Your task to perform on an android device: Open the stopwatch Image 0: 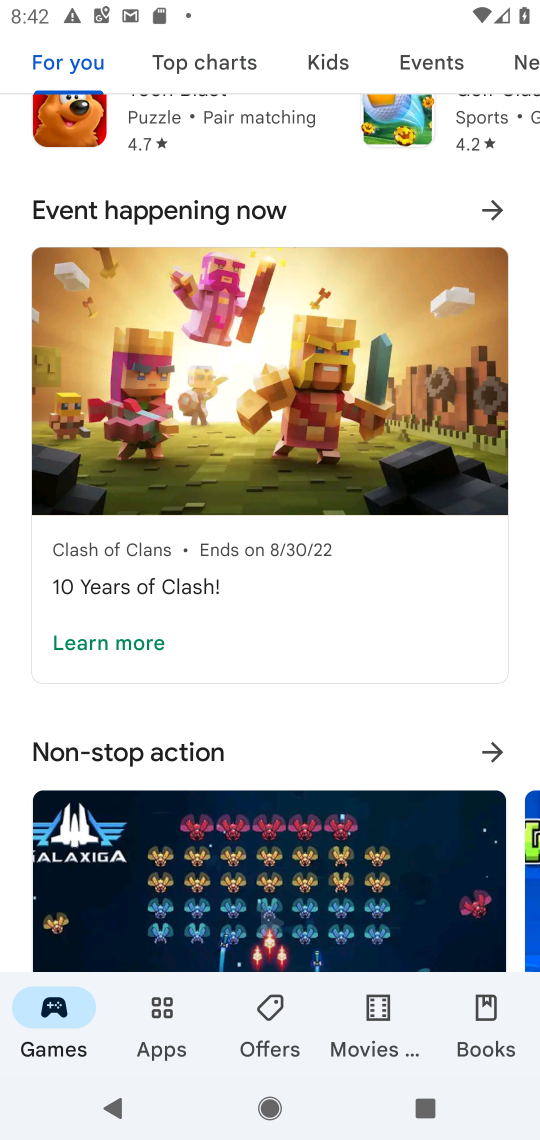
Step 0: press home button
Your task to perform on an android device: Open the stopwatch Image 1: 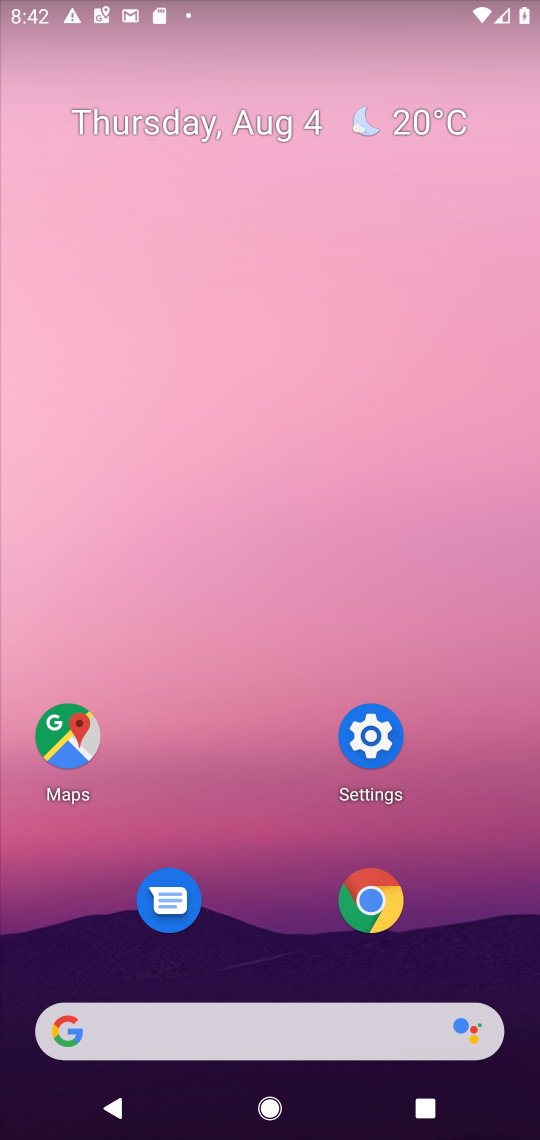
Step 1: drag from (226, 1016) to (361, 137)
Your task to perform on an android device: Open the stopwatch Image 2: 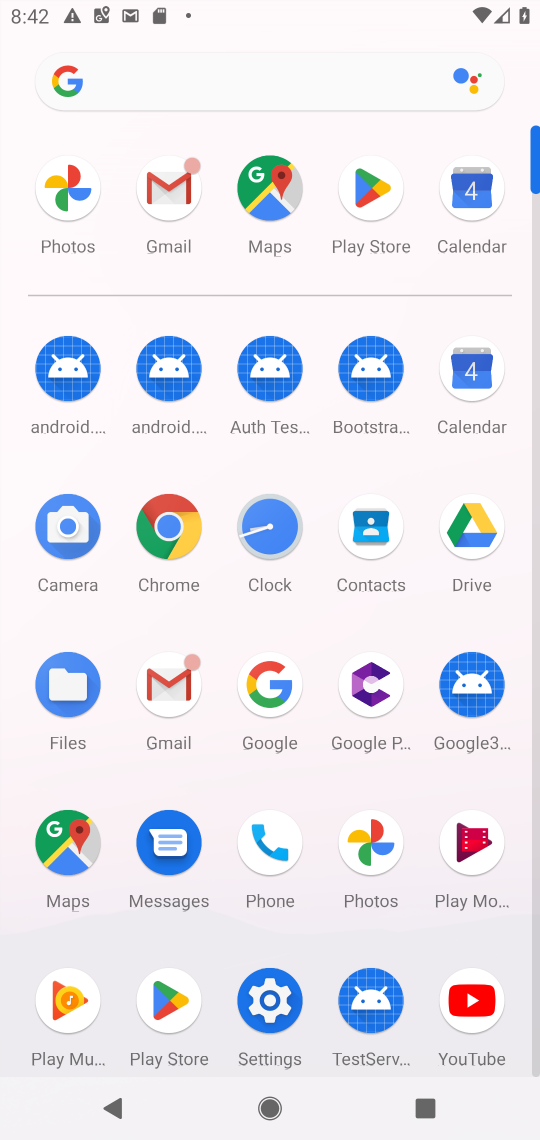
Step 2: click (276, 534)
Your task to perform on an android device: Open the stopwatch Image 3: 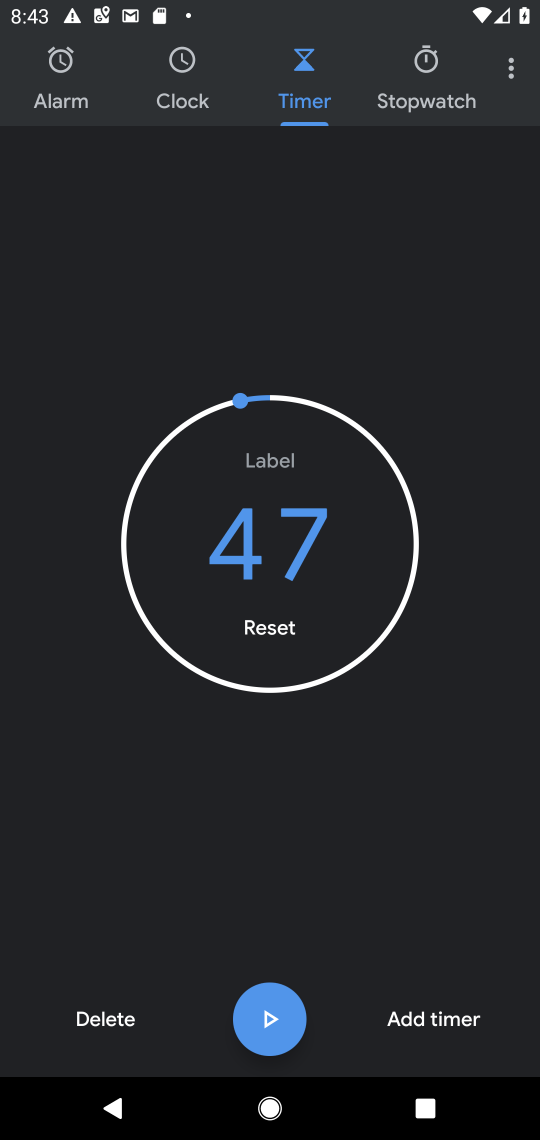
Step 3: click (431, 100)
Your task to perform on an android device: Open the stopwatch Image 4: 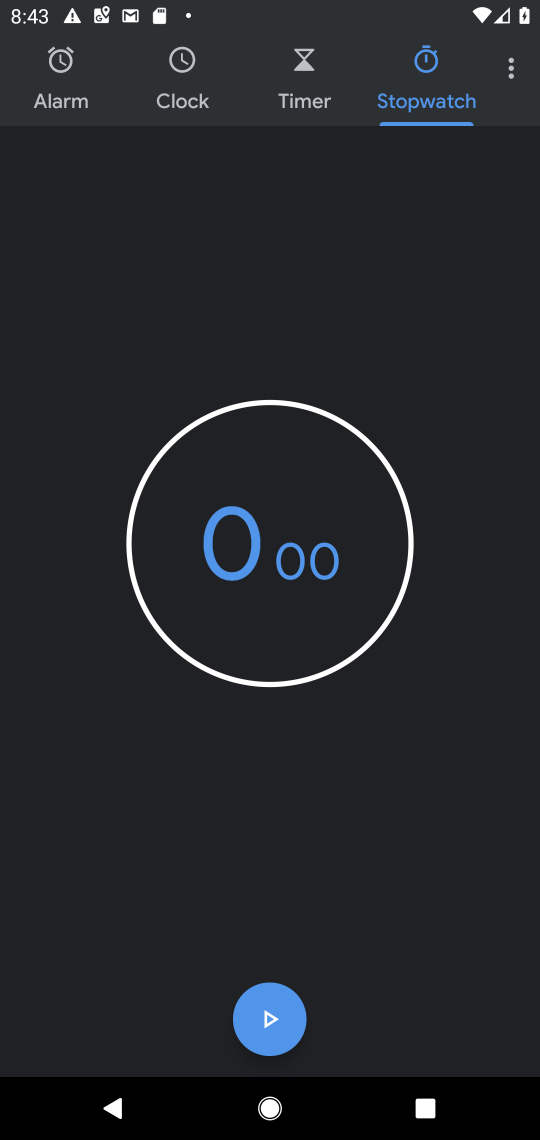
Step 4: task complete